Your task to perform on an android device: Go to internet settings Image 0: 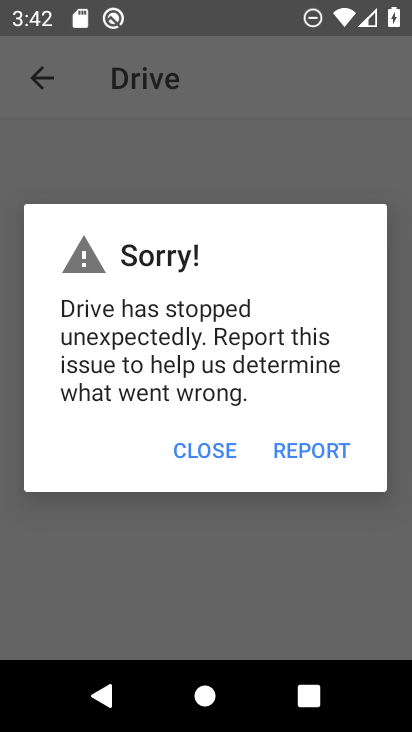
Step 0: press home button
Your task to perform on an android device: Go to internet settings Image 1: 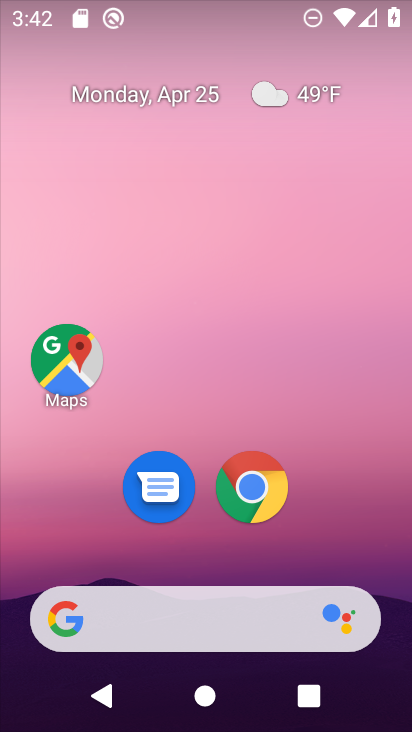
Step 1: drag from (386, 560) to (380, 12)
Your task to perform on an android device: Go to internet settings Image 2: 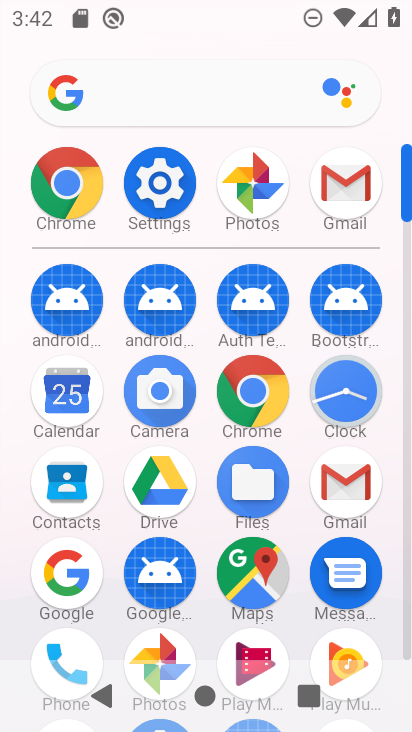
Step 2: click (158, 194)
Your task to perform on an android device: Go to internet settings Image 3: 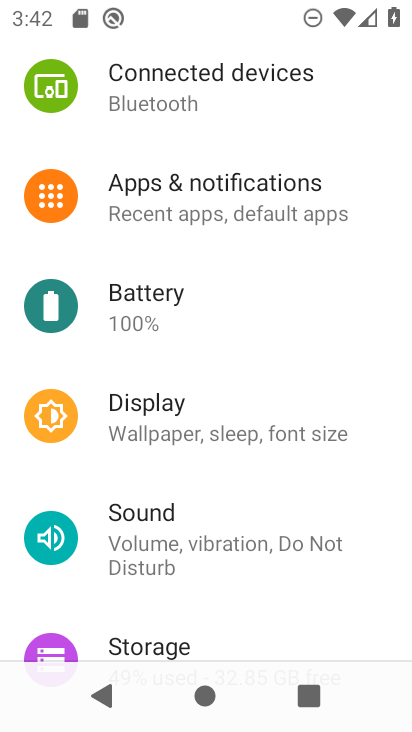
Step 3: drag from (303, 172) to (297, 446)
Your task to perform on an android device: Go to internet settings Image 4: 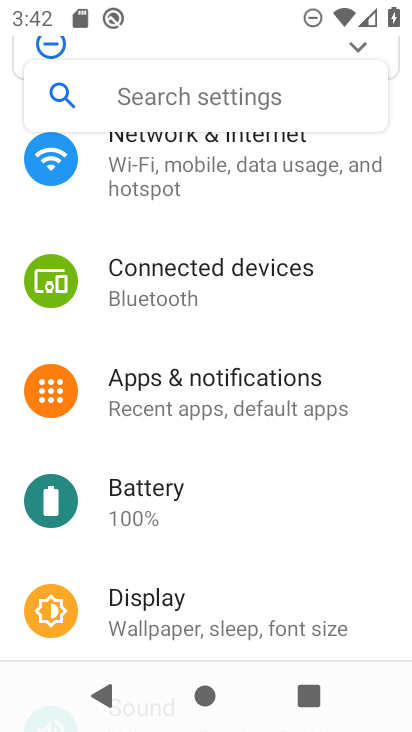
Step 4: click (200, 170)
Your task to perform on an android device: Go to internet settings Image 5: 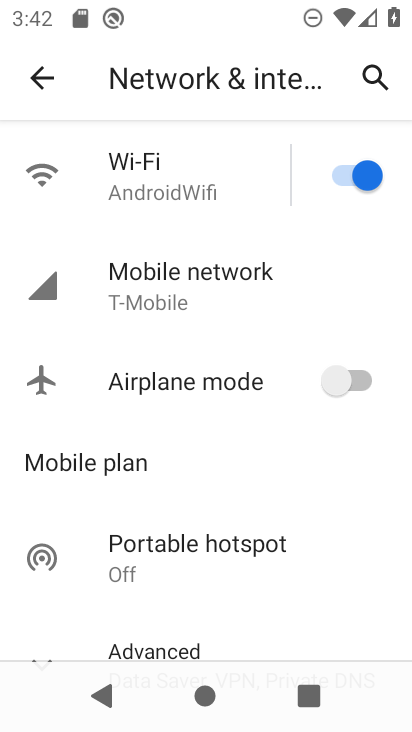
Step 5: drag from (148, 472) to (155, 144)
Your task to perform on an android device: Go to internet settings Image 6: 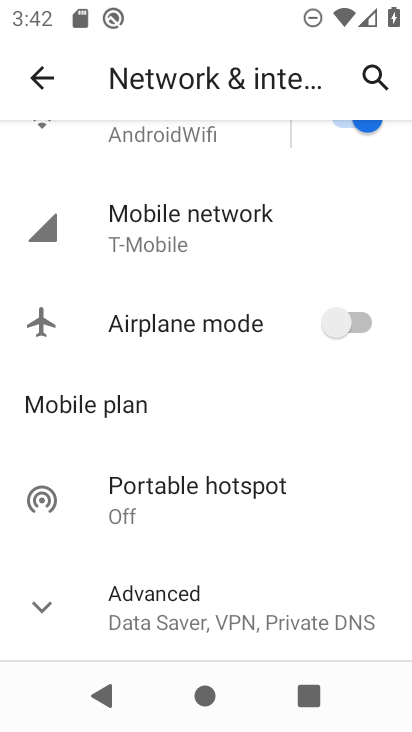
Step 6: click (39, 623)
Your task to perform on an android device: Go to internet settings Image 7: 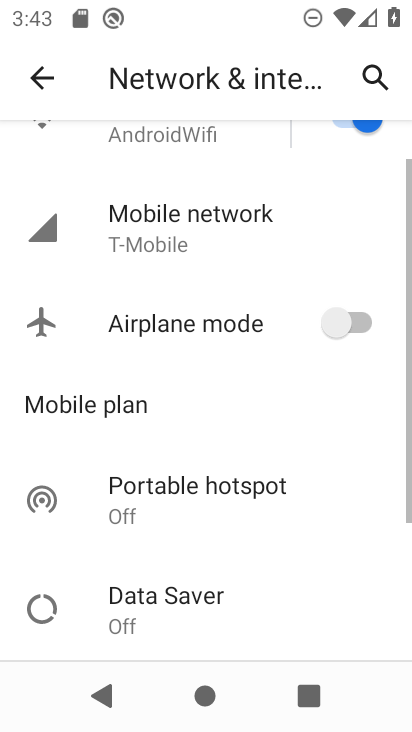
Step 7: task complete